Your task to perform on an android device: Go to Amazon Image 0: 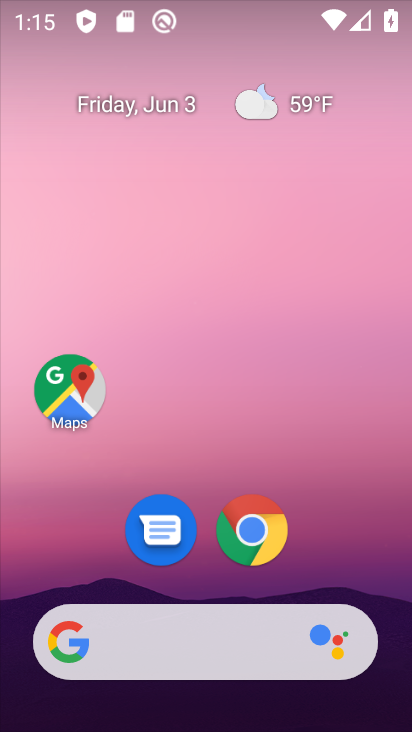
Step 0: click (224, 544)
Your task to perform on an android device: Go to Amazon Image 1: 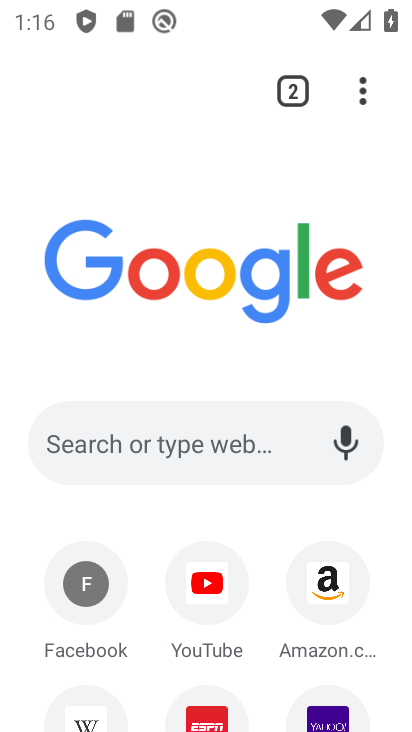
Step 1: click (319, 588)
Your task to perform on an android device: Go to Amazon Image 2: 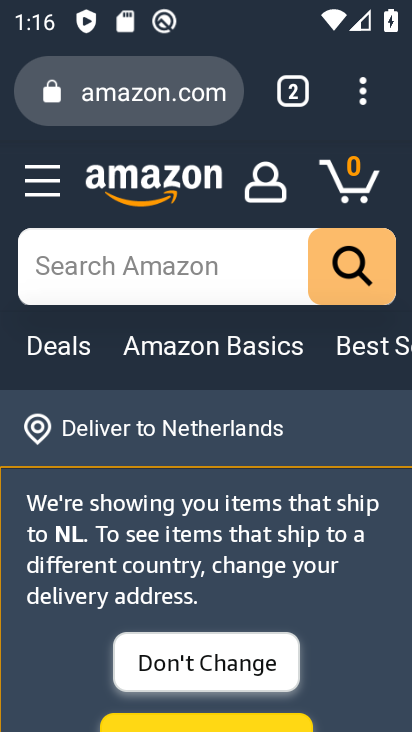
Step 2: task complete